Your task to perform on an android device: Go to Amazon Image 0: 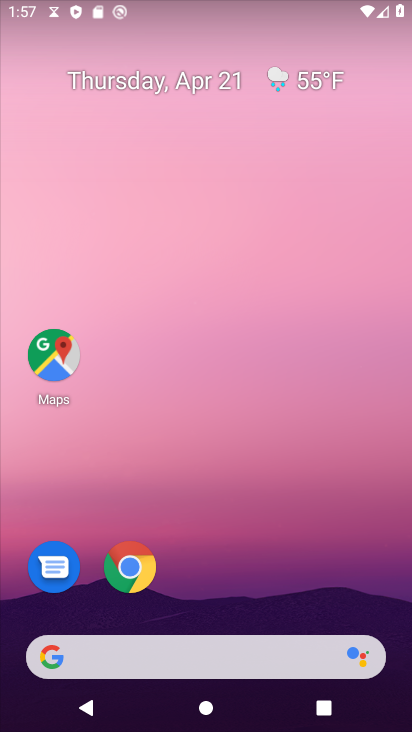
Step 0: drag from (201, 587) to (325, 144)
Your task to perform on an android device: Go to Amazon Image 1: 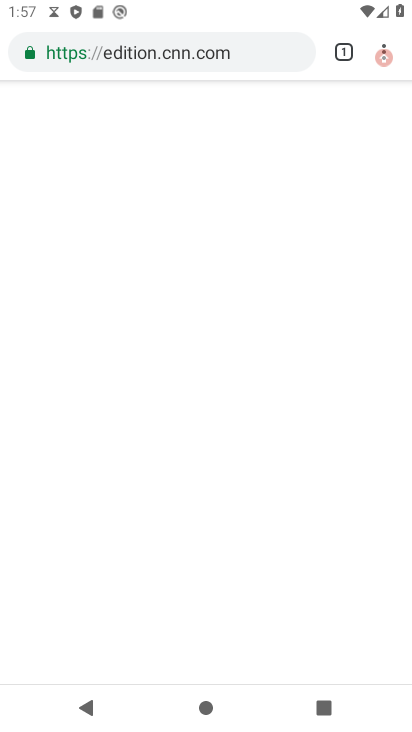
Step 1: press home button
Your task to perform on an android device: Go to Amazon Image 2: 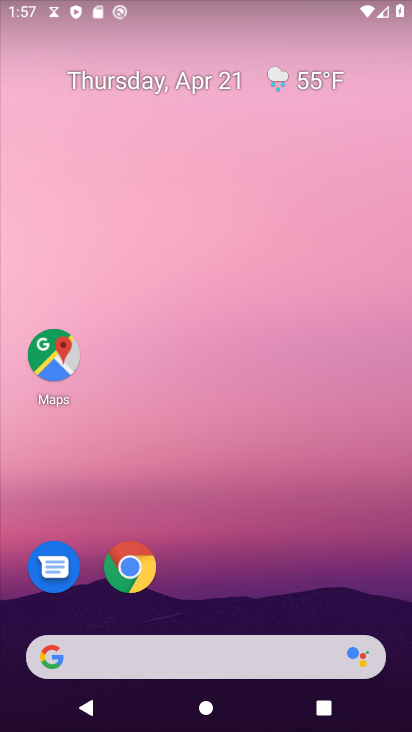
Step 2: drag from (203, 648) to (326, 119)
Your task to perform on an android device: Go to Amazon Image 3: 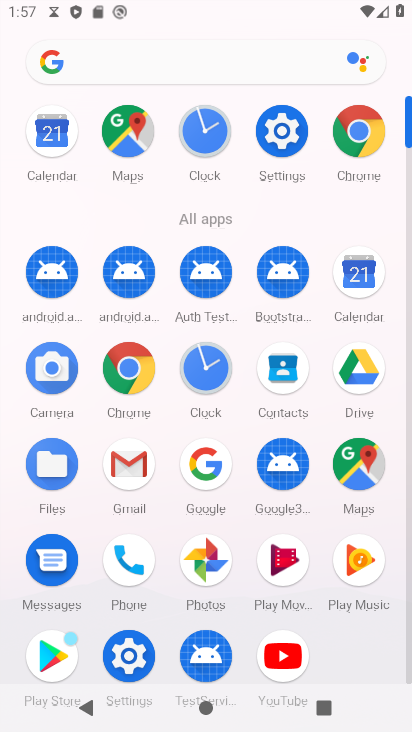
Step 3: click (352, 137)
Your task to perform on an android device: Go to Amazon Image 4: 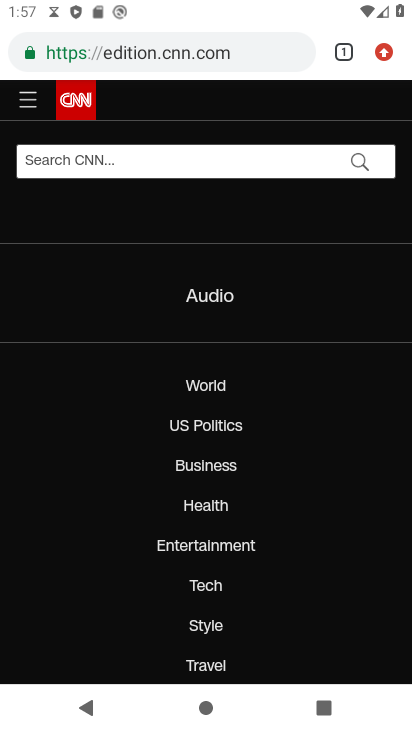
Step 4: click (384, 71)
Your task to perform on an android device: Go to Amazon Image 5: 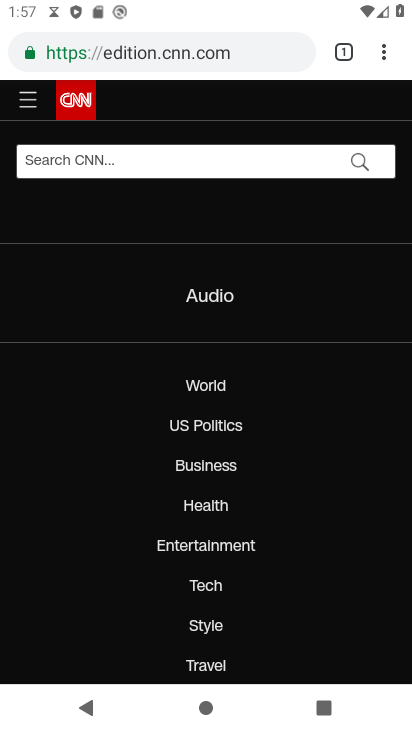
Step 5: click (379, 60)
Your task to perform on an android device: Go to Amazon Image 6: 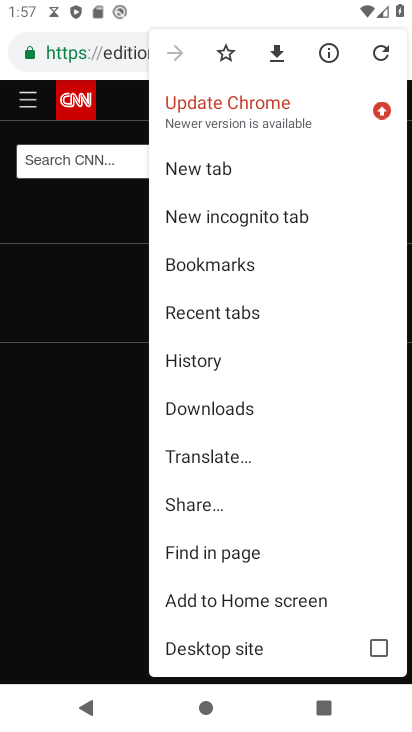
Step 6: click (222, 165)
Your task to perform on an android device: Go to Amazon Image 7: 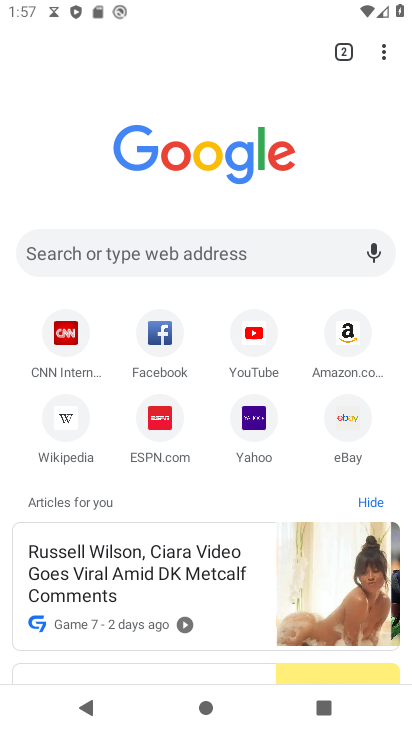
Step 7: click (345, 329)
Your task to perform on an android device: Go to Amazon Image 8: 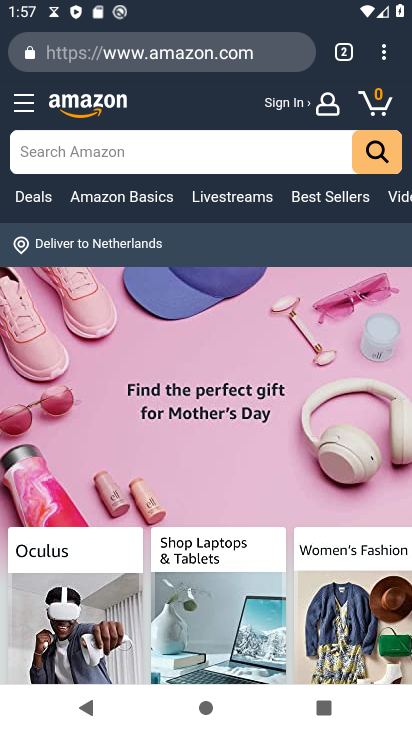
Step 8: task complete